Your task to perform on an android device: Go to Google Image 0: 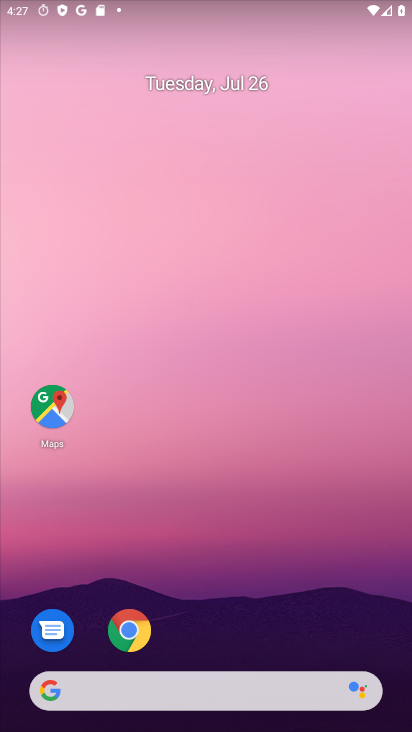
Step 0: drag from (343, 622) to (290, 73)
Your task to perform on an android device: Go to Google Image 1: 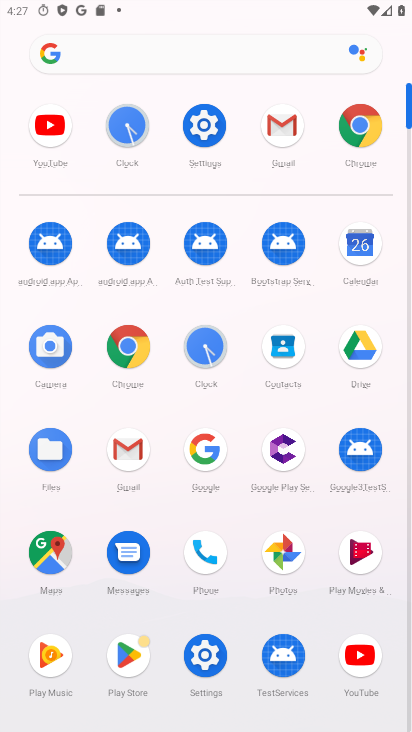
Step 1: click (207, 455)
Your task to perform on an android device: Go to Google Image 2: 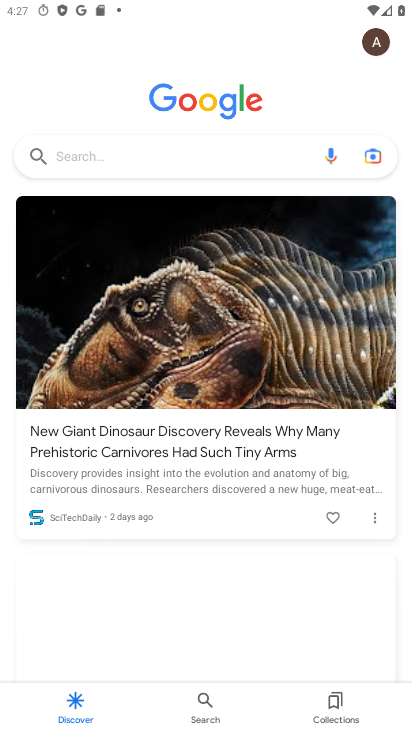
Step 2: task complete